Your task to perform on an android device: Open Amazon Image 0: 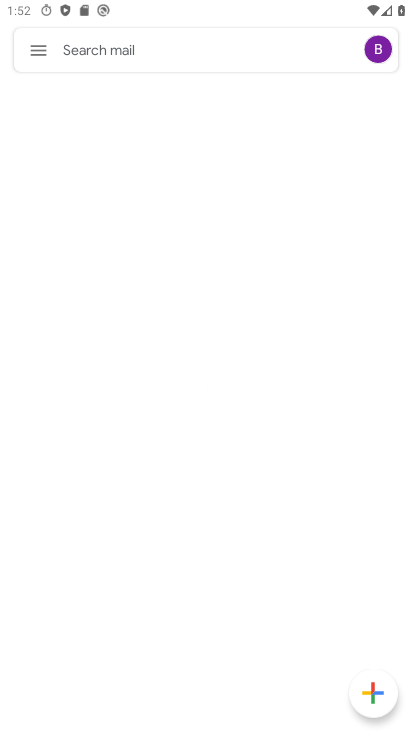
Step 0: press home button
Your task to perform on an android device: Open Amazon Image 1: 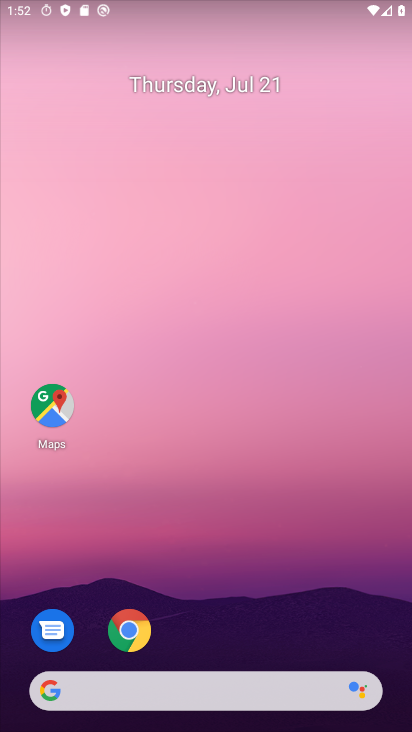
Step 1: click (131, 632)
Your task to perform on an android device: Open Amazon Image 2: 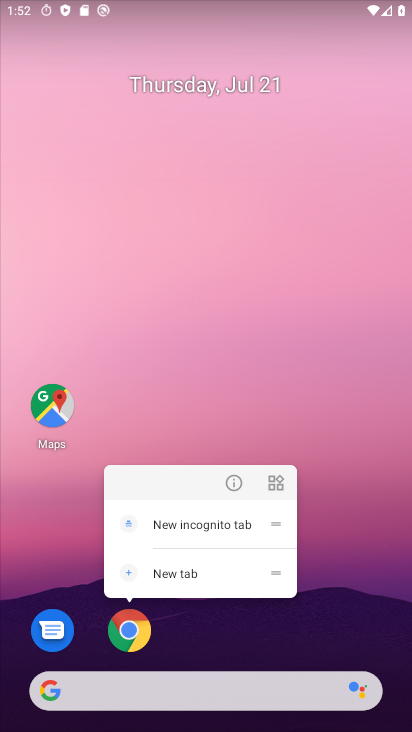
Step 2: click (131, 632)
Your task to perform on an android device: Open Amazon Image 3: 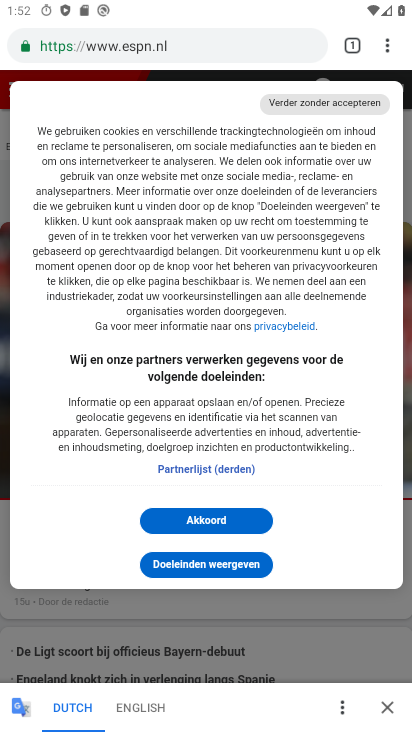
Step 3: click (353, 43)
Your task to perform on an android device: Open Amazon Image 4: 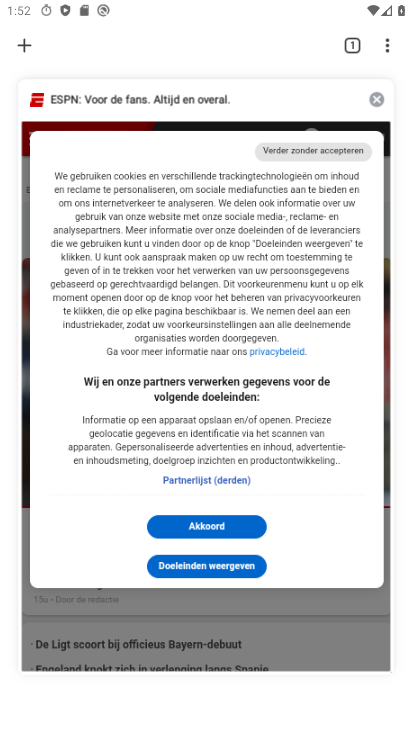
Step 4: click (23, 45)
Your task to perform on an android device: Open Amazon Image 5: 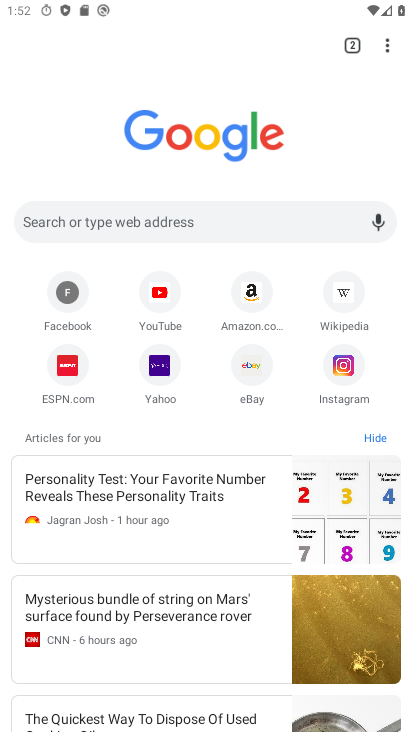
Step 5: click (249, 298)
Your task to perform on an android device: Open Amazon Image 6: 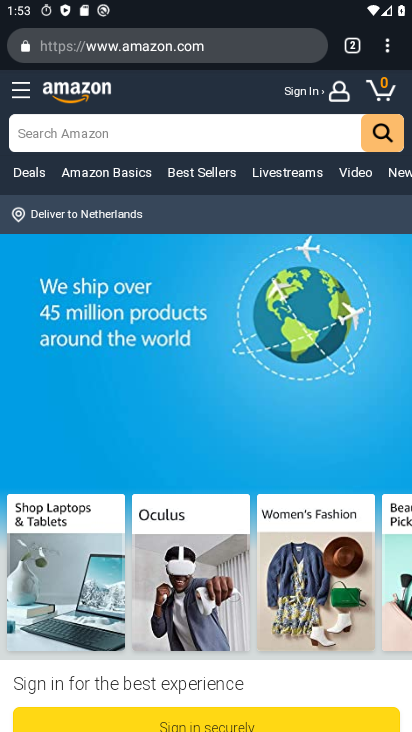
Step 6: task complete